Your task to perform on an android device: Open eBay Image 0: 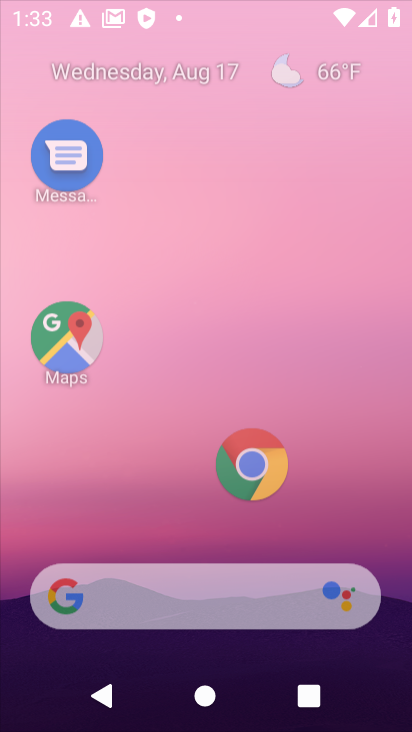
Step 0: press home button
Your task to perform on an android device: Open eBay Image 1: 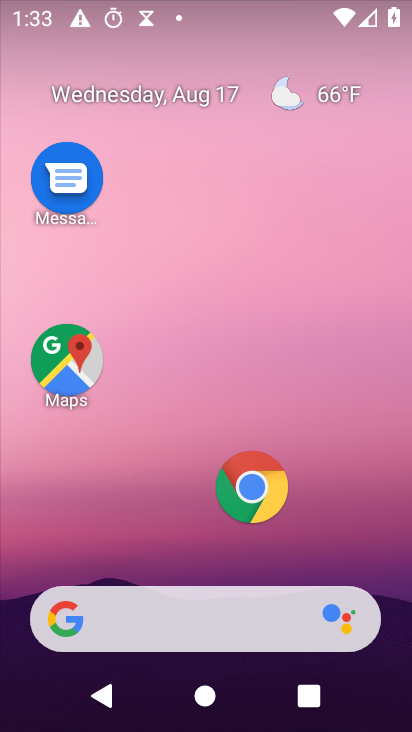
Step 1: click (46, 620)
Your task to perform on an android device: Open eBay Image 2: 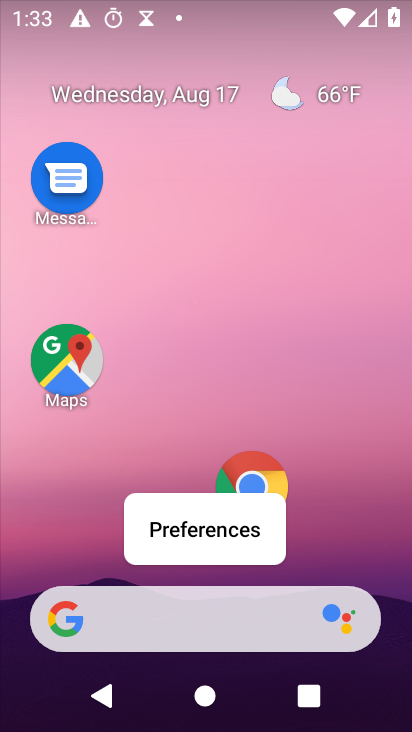
Step 2: click (69, 617)
Your task to perform on an android device: Open eBay Image 3: 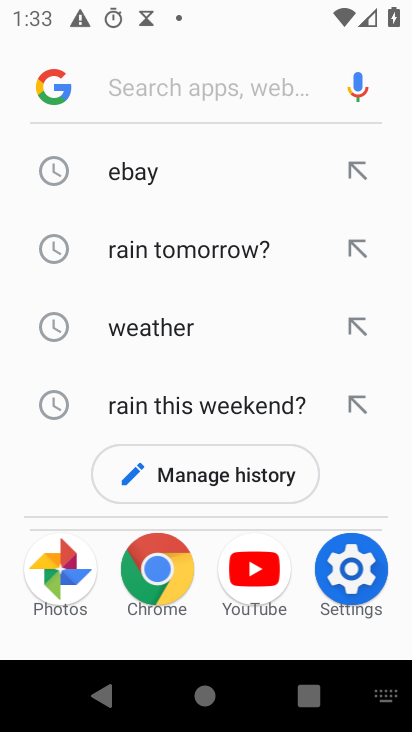
Step 3: click (130, 168)
Your task to perform on an android device: Open eBay Image 4: 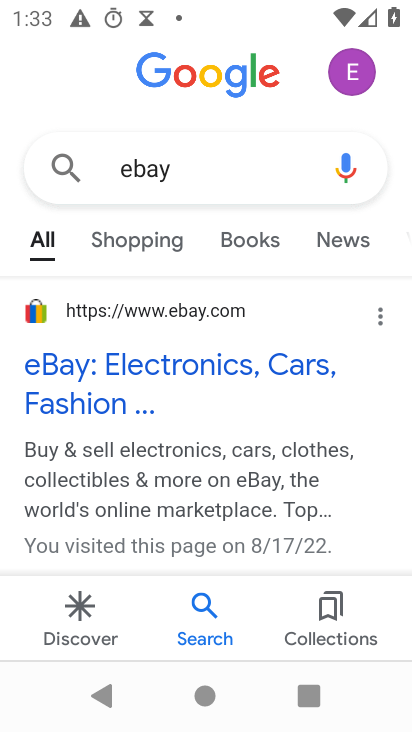
Step 4: click (159, 362)
Your task to perform on an android device: Open eBay Image 5: 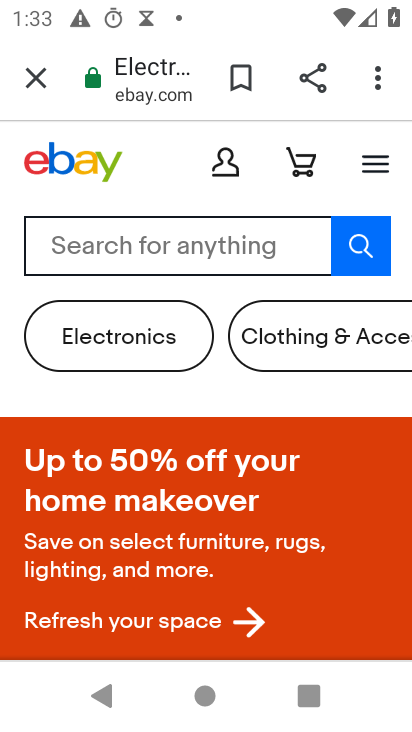
Step 5: task complete